Your task to perform on an android device: Is it going to rain tomorrow? Image 0: 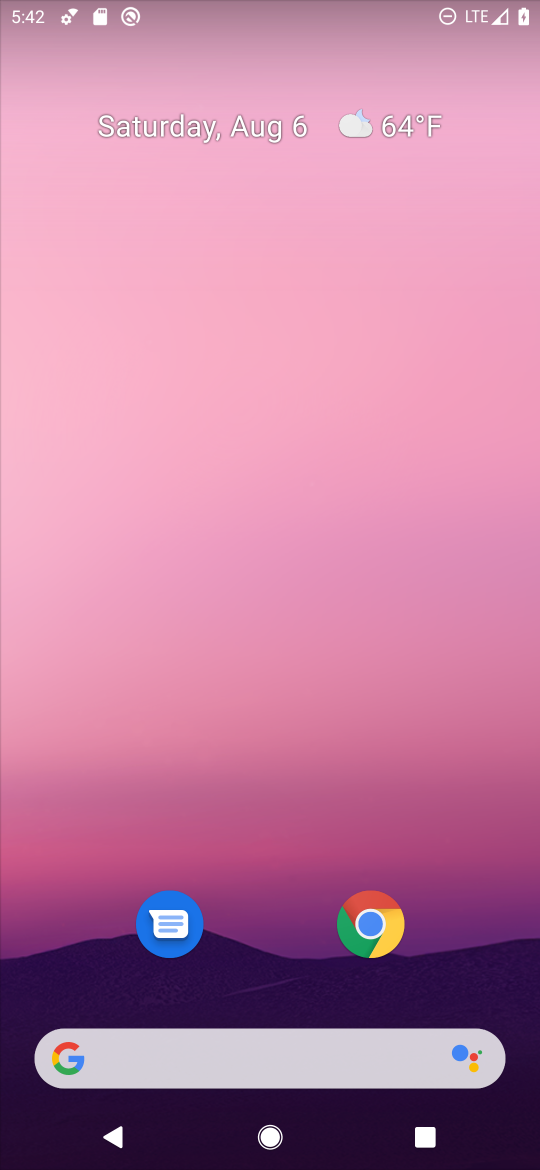
Step 0: click (249, 1045)
Your task to perform on an android device: Is it going to rain tomorrow? Image 1: 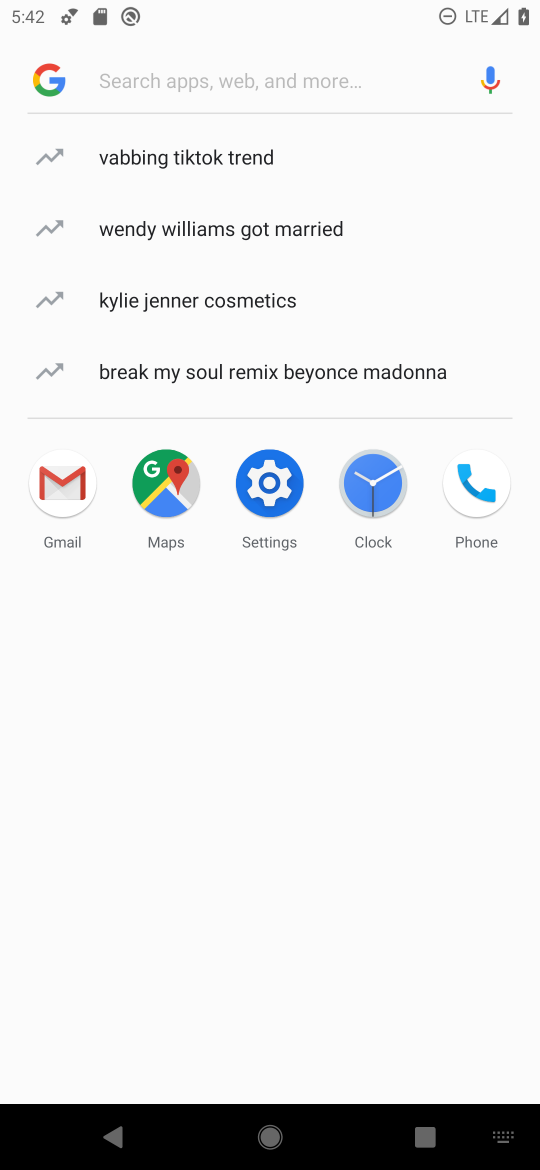
Step 1: type "weather"
Your task to perform on an android device: Is it going to rain tomorrow? Image 2: 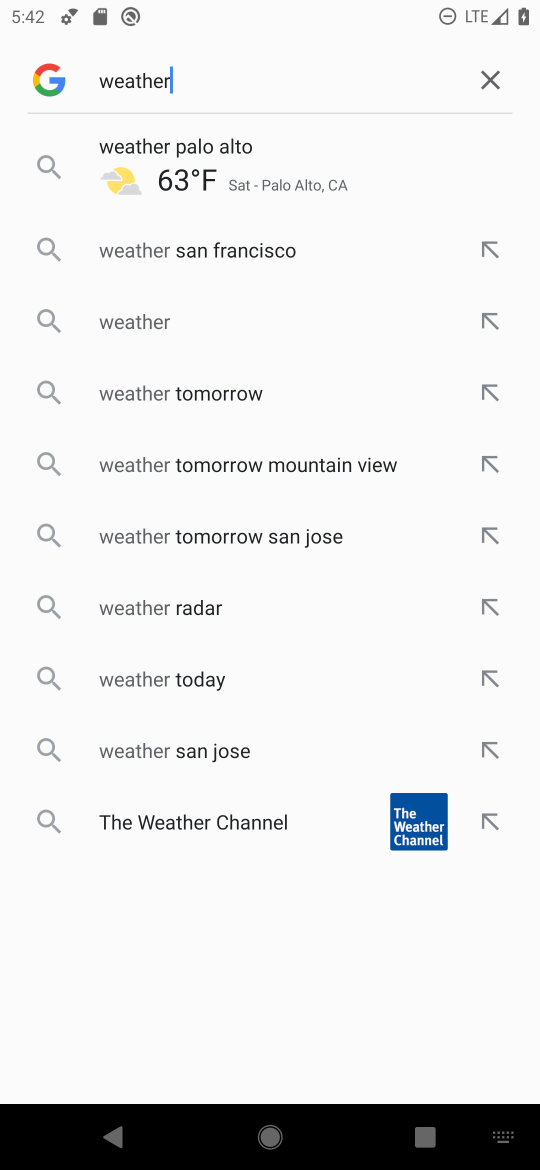
Step 2: click (157, 139)
Your task to perform on an android device: Is it going to rain tomorrow? Image 3: 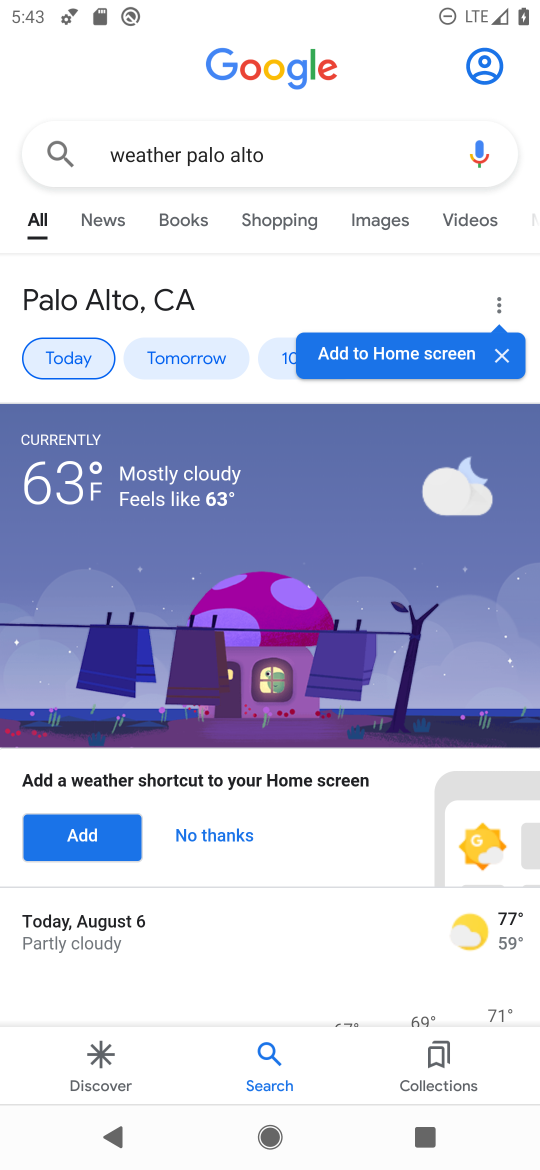
Step 3: click (172, 355)
Your task to perform on an android device: Is it going to rain tomorrow? Image 4: 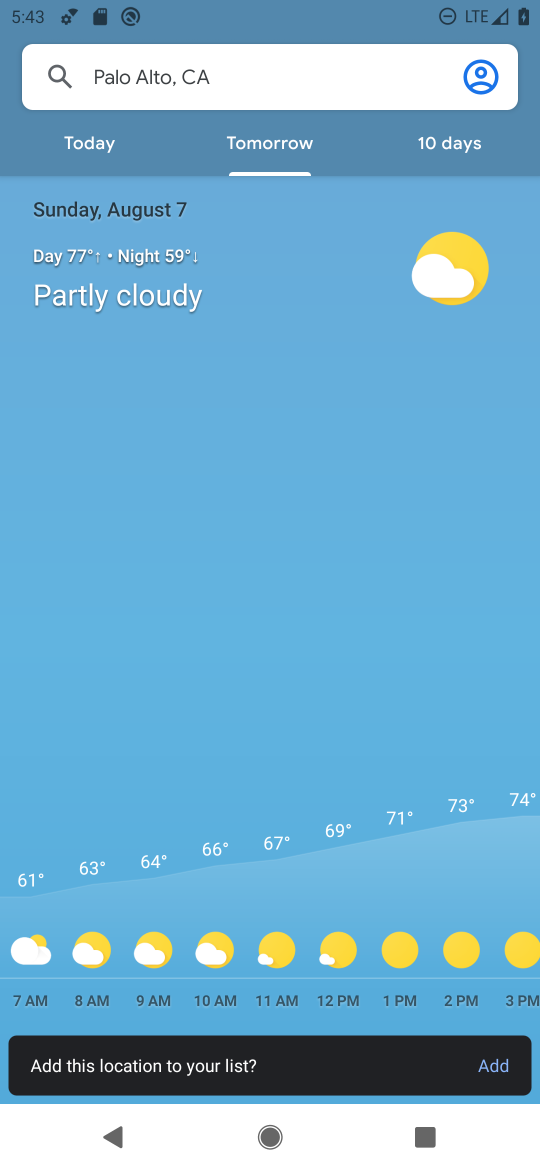
Step 4: task complete